Your task to perform on an android device: Is it going to rain tomorrow? Image 0: 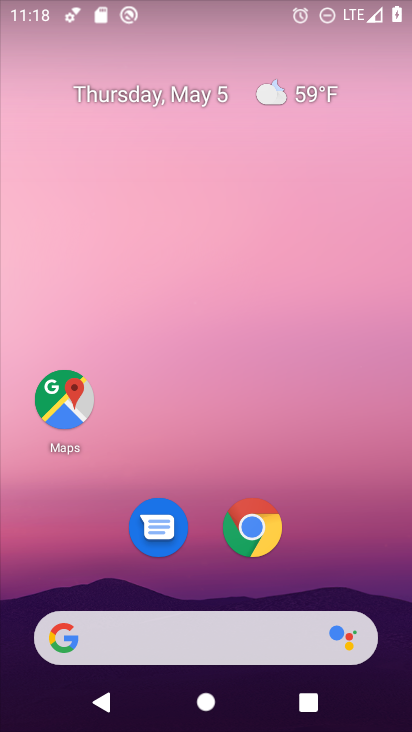
Step 0: click (280, 621)
Your task to perform on an android device: Is it going to rain tomorrow? Image 1: 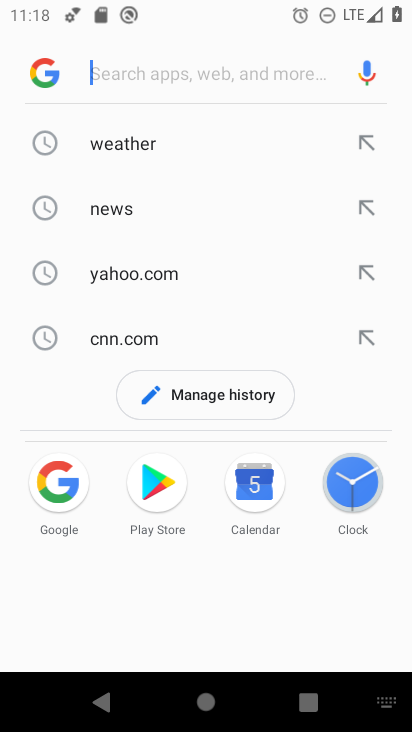
Step 1: type "Is it going to rain tomorrow?"
Your task to perform on an android device: Is it going to rain tomorrow? Image 2: 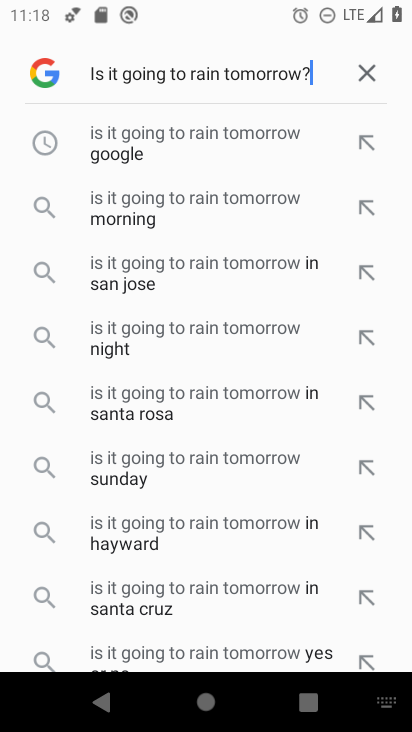
Step 2: click (276, 141)
Your task to perform on an android device: Is it going to rain tomorrow? Image 3: 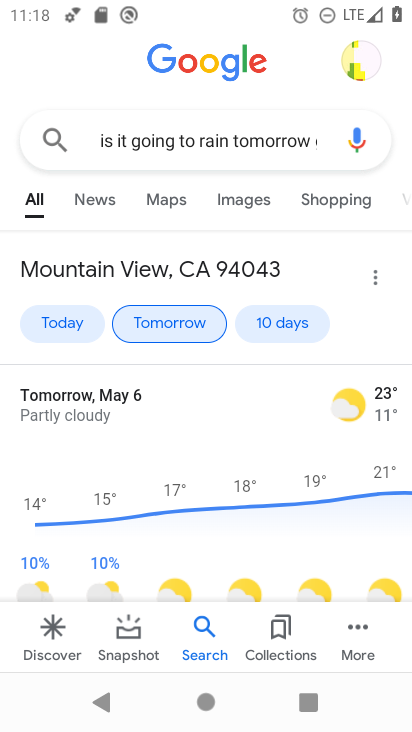
Step 3: task complete